Your task to perform on an android device: Open Google Image 0: 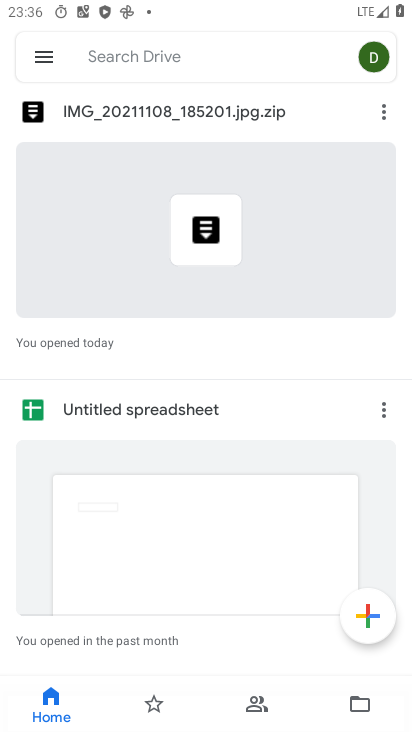
Step 0: press home button
Your task to perform on an android device: Open Google Image 1: 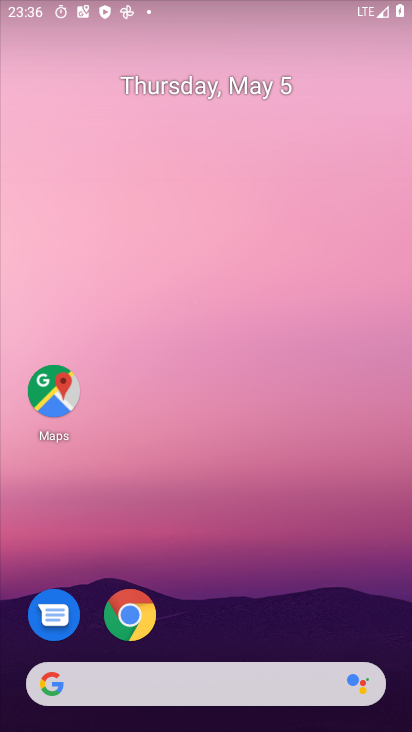
Step 1: drag from (229, 606) to (269, 72)
Your task to perform on an android device: Open Google Image 2: 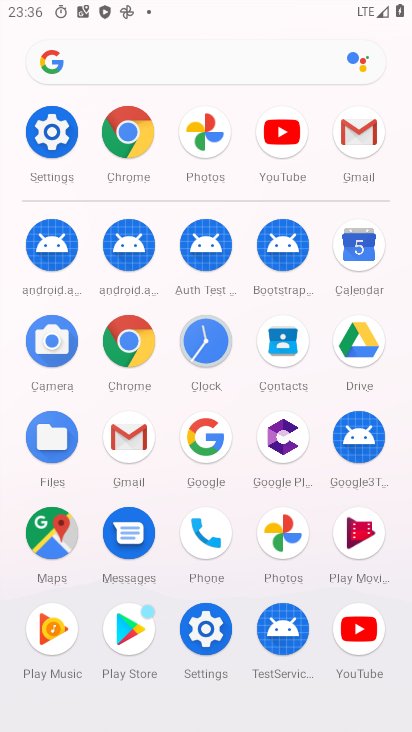
Step 2: click (206, 439)
Your task to perform on an android device: Open Google Image 3: 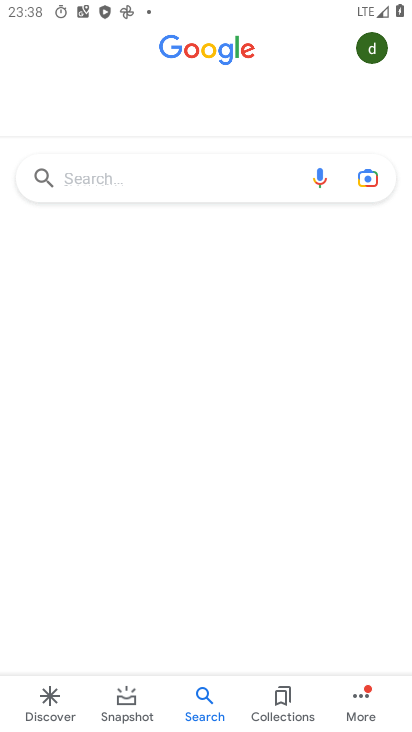
Step 3: task complete